Your task to perform on an android device: Open calendar and show me the first week of next month Image 0: 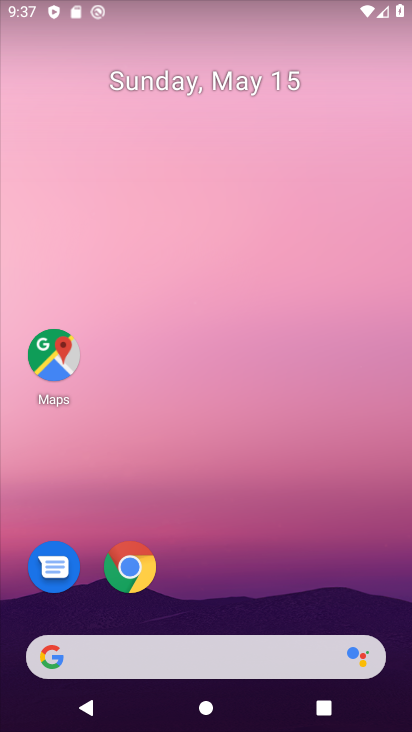
Step 0: drag from (245, 547) to (279, 129)
Your task to perform on an android device: Open calendar and show me the first week of next month Image 1: 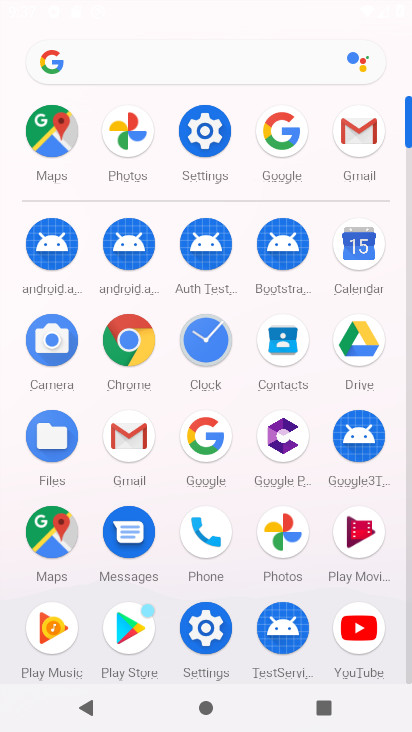
Step 1: click (360, 243)
Your task to perform on an android device: Open calendar and show me the first week of next month Image 2: 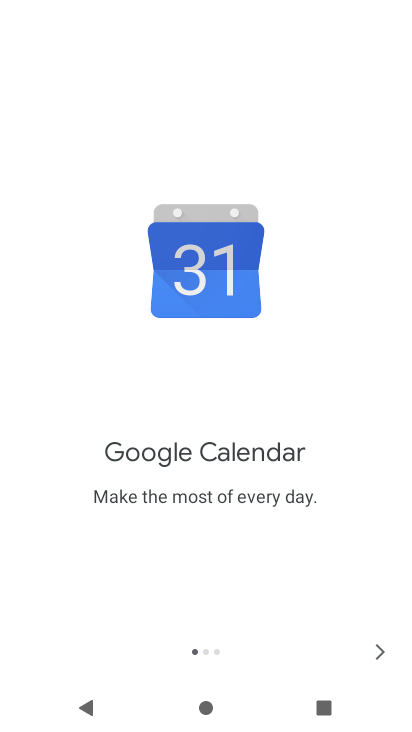
Step 2: click (359, 647)
Your task to perform on an android device: Open calendar and show me the first week of next month Image 3: 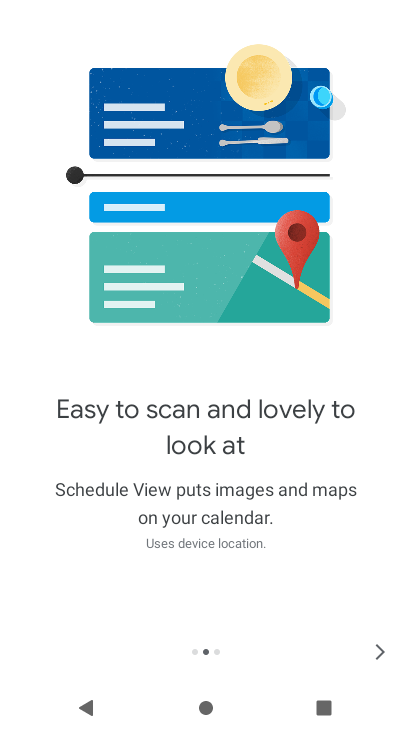
Step 3: click (359, 647)
Your task to perform on an android device: Open calendar and show me the first week of next month Image 4: 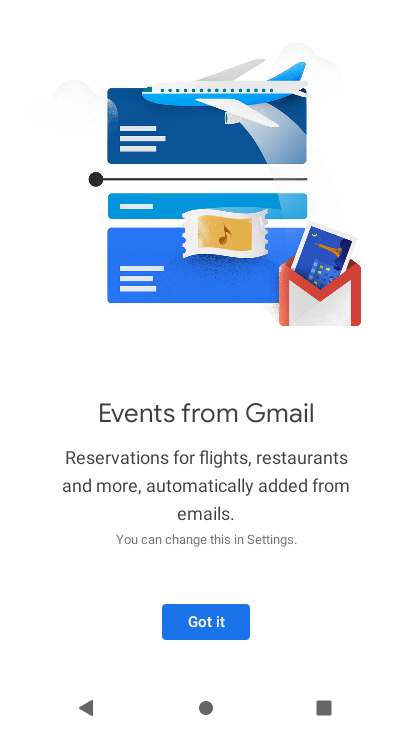
Step 4: click (198, 630)
Your task to perform on an android device: Open calendar and show me the first week of next month Image 5: 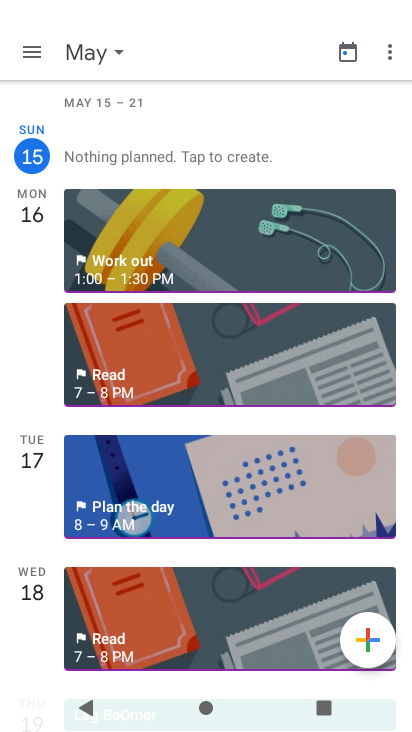
Step 5: click (112, 57)
Your task to perform on an android device: Open calendar and show me the first week of next month Image 6: 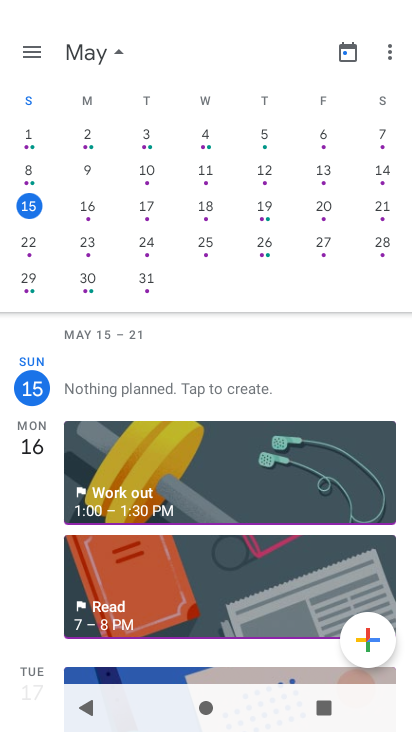
Step 6: drag from (377, 289) to (3, 257)
Your task to perform on an android device: Open calendar and show me the first week of next month Image 7: 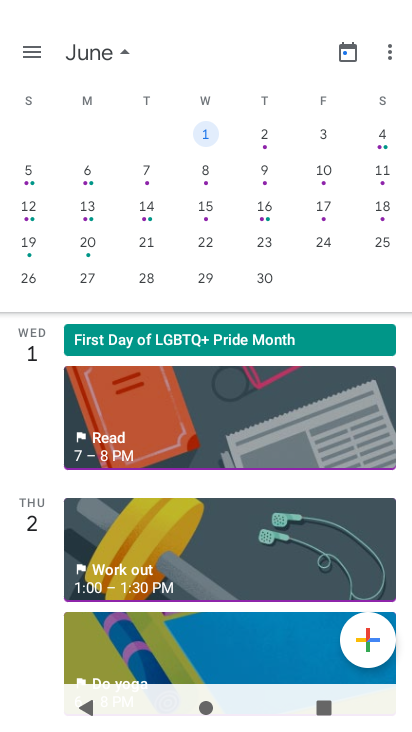
Step 7: click (312, 141)
Your task to perform on an android device: Open calendar and show me the first week of next month Image 8: 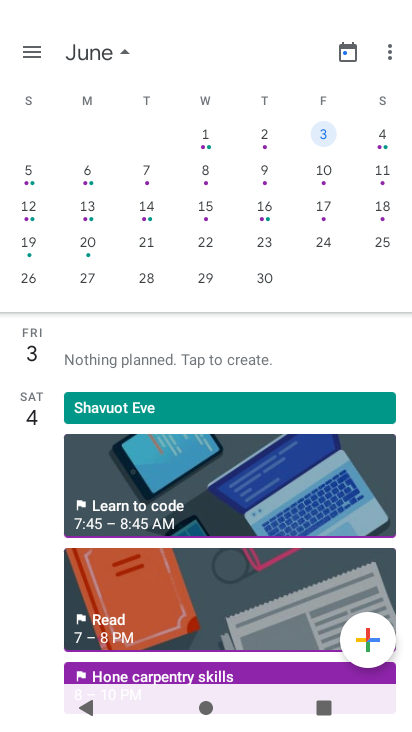
Step 8: task complete